Your task to perform on an android device: Open Google Chrome and click the shortcut for Amazon.com Image 0: 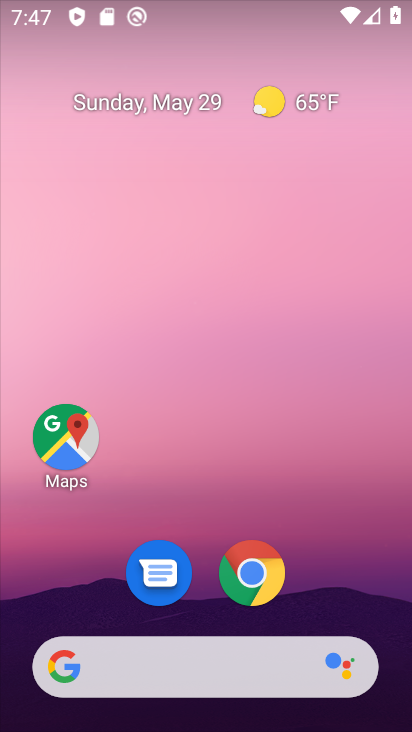
Step 0: click (235, 569)
Your task to perform on an android device: Open Google Chrome and click the shortcut for Amazon.com Image 1: 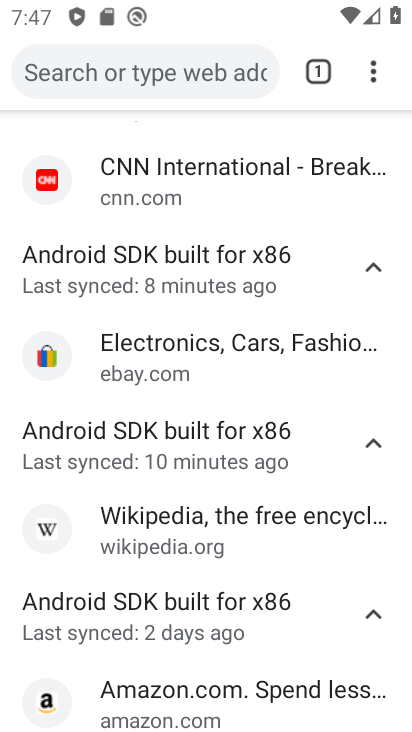
Step 1: click (334, 66)
Your task to perform on an android device: Open Google Chrome and click the shortcut for Amazon.com Image 2: 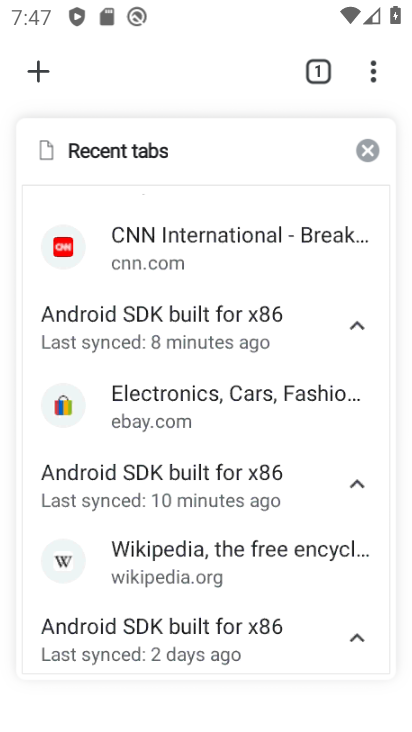
Step 2: click (42, 76)
Your task to perform on an android device: Open Google Chrome and click the shortcut for Amazon.com Image 3: 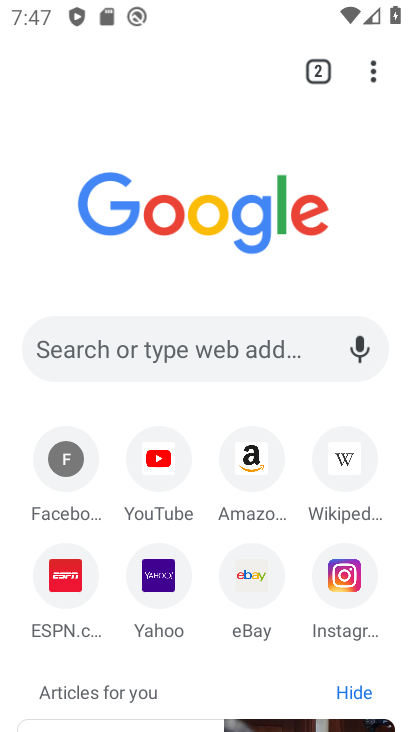
Step 3: click (253, 464)
Your task to perform on an android device: Open Google Chrome and click the shortcut for Amazon.com Image 4: 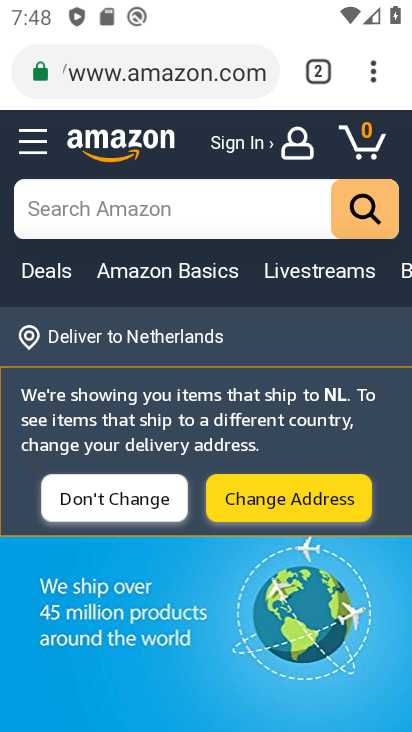
Step 4: task complete